Your task to perform on an android device: change text size in settings app Image 0: 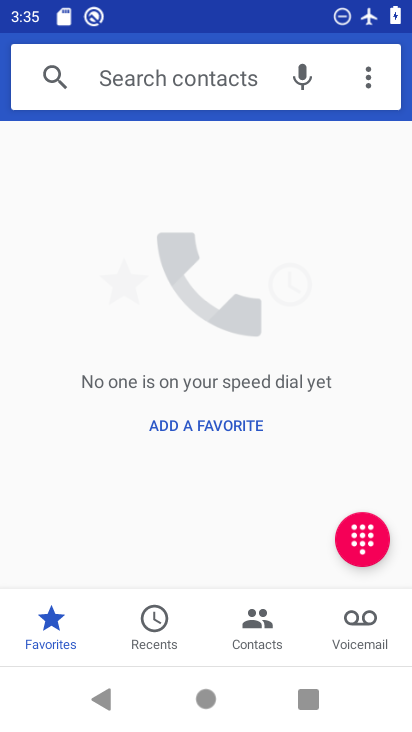
Step 0: press home button
Your task to perform on an android device: change text size in settings app Image 1: 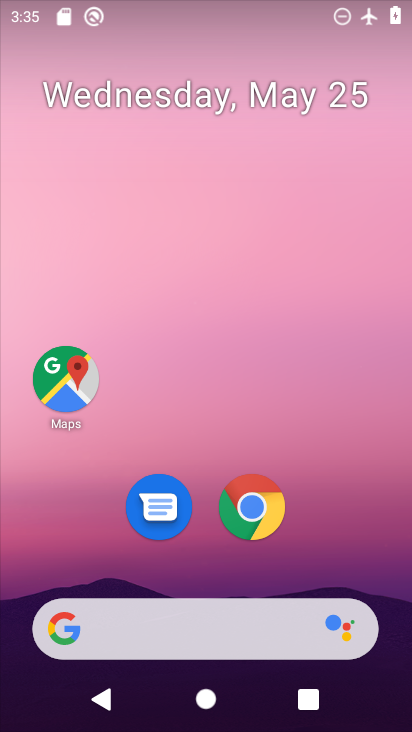
Step 1: drag from (230, 607) to (208, 153)
Your task to perform on an android device: change text size in settings app Image 2: 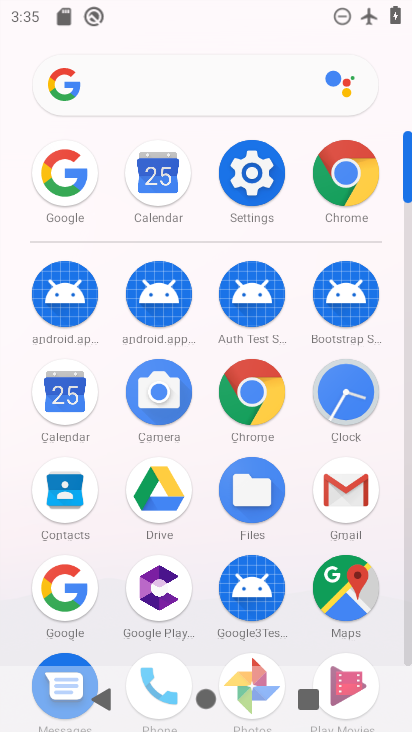
Step 2: click (252, 191)
Your task to perform on an android device: change text size in settings app Image 3: 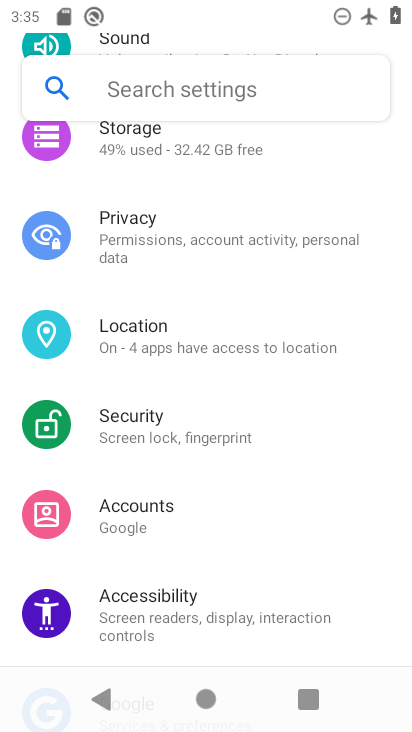
Step 3: drag from (204, 265) to (188, 525)
Your task to perform on an android device: change text size in settings app Image 4: 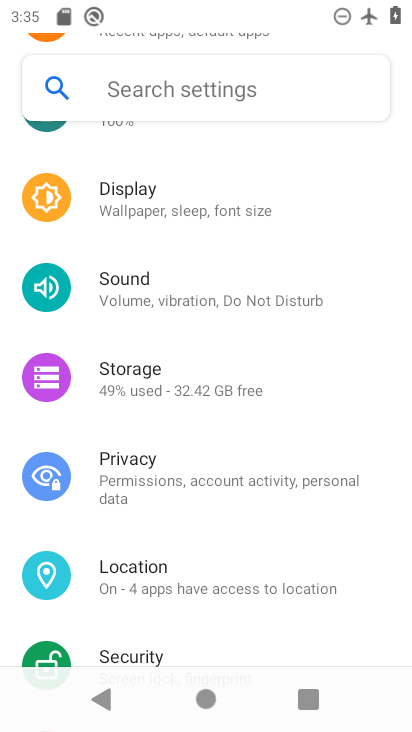
Step 4: click (214, 214)
Your task to perform on an android device: change text size in settings app Image 5: 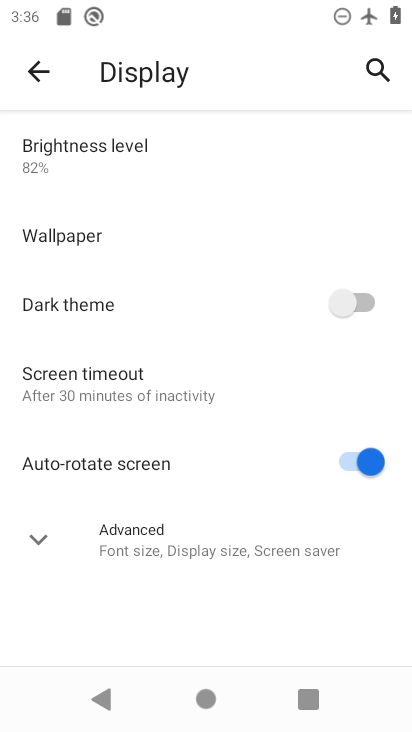
Step 5: click (187, 544)
Your task to perform on an android device: change text size in settings app Image 6: 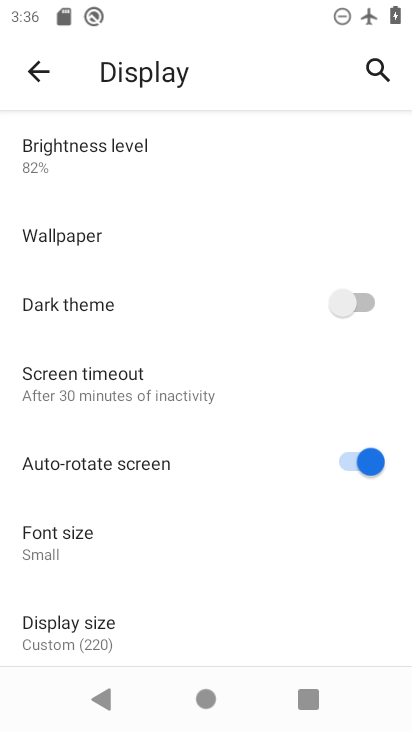
Step 6: click (130, 546)
Your task to perform on an android device: change text size in settings app Image 7: 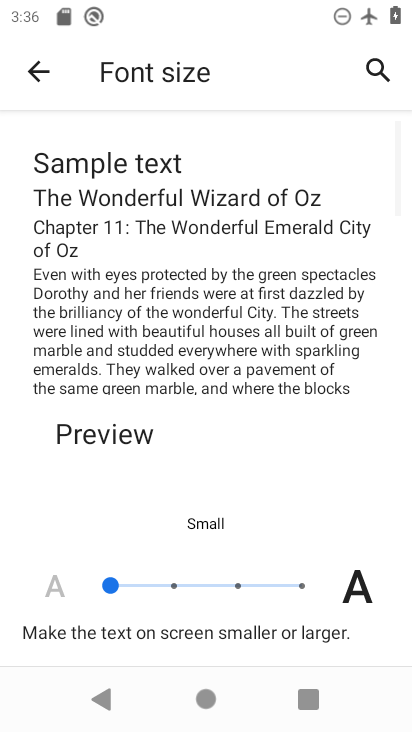
Step 7: click (192, 580)
Your task to perform on an android device: change text size in settings app Image 8: 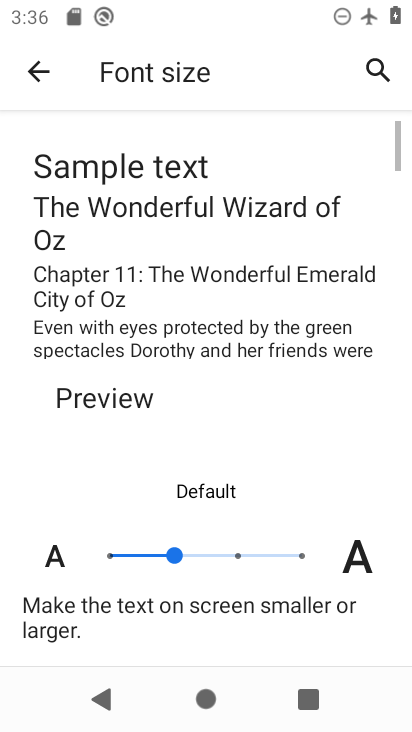
Step 8: task complete